Your task to perform on an android device: Show me recent news Image 0: 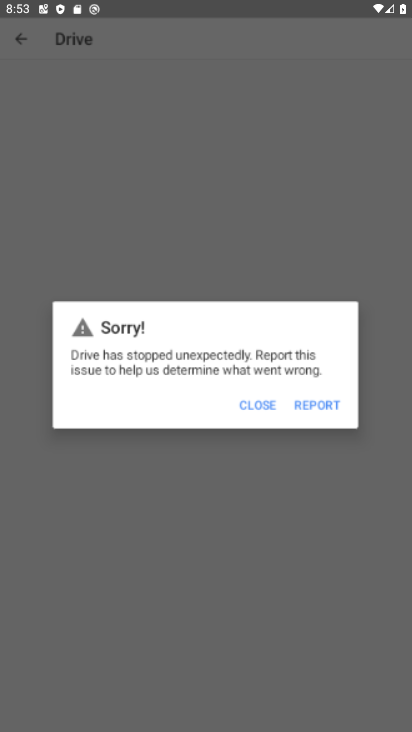
Step 0: drag from (226, 651) to (272, 267)
Your task to perform on an android device: Show me recent news Image 1: 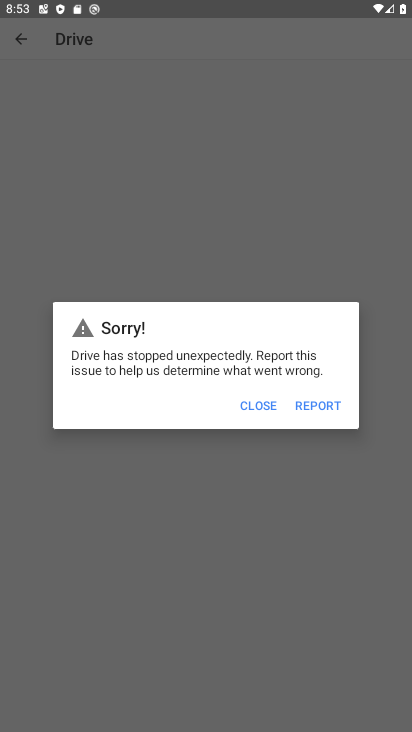
Step 1: press home button
Your task to perform on an android device: Show me recent news Image 2: 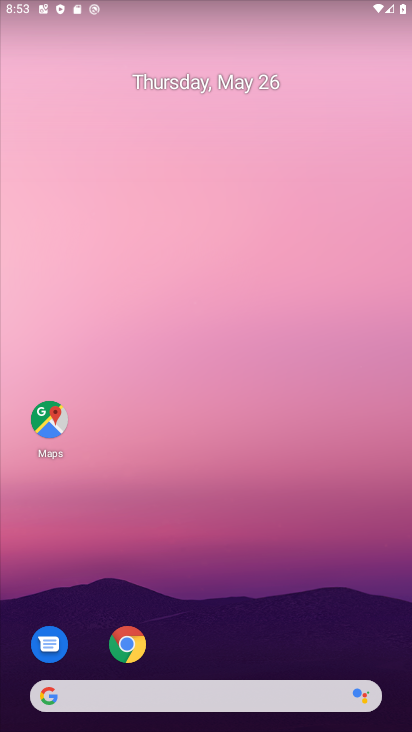
Step 2: click (124, 684)
Your task to perform on an android device: Show me recent news Image 3: 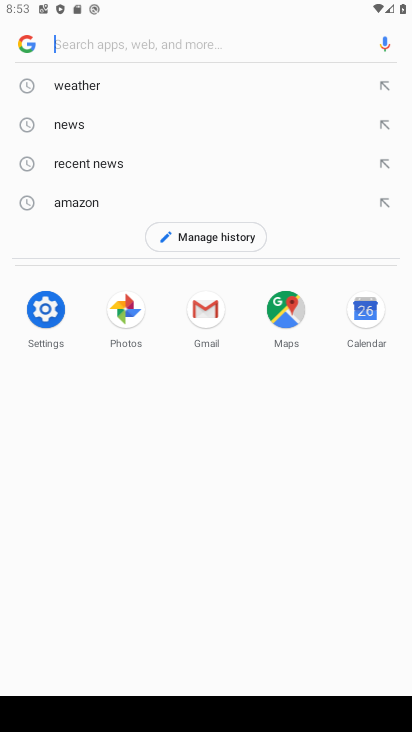
Step 3: click (94, 164)
Your task to perform on an android device: Show me recent news Image 4: 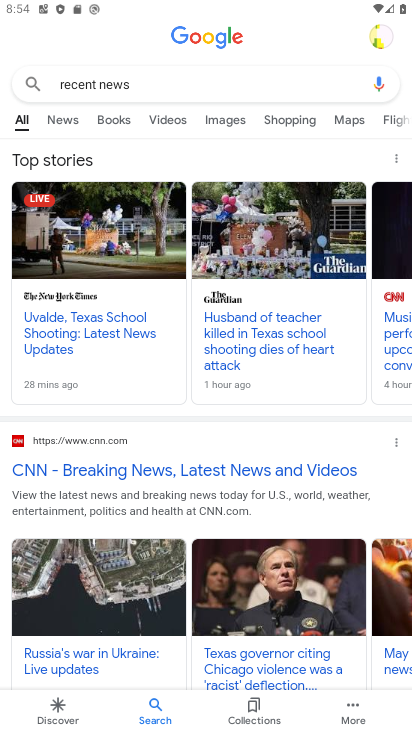
Step 4: task complete